Your task to perform on an android device: set default search engine in the chrome app Image 0: 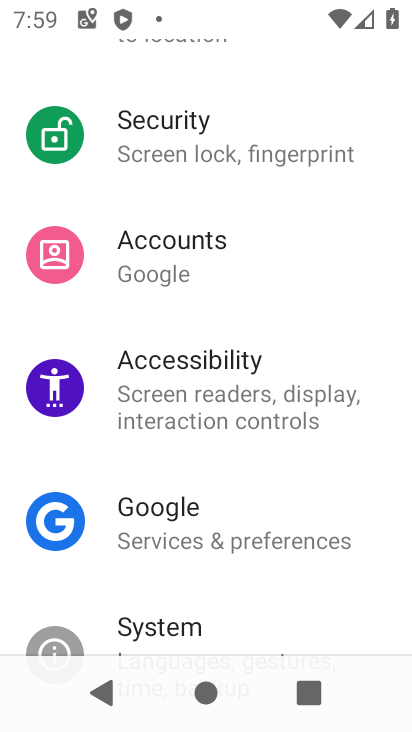
Step 0: press home button
Your task to perform on an android device: set default search engine in the chrome app Image 1: 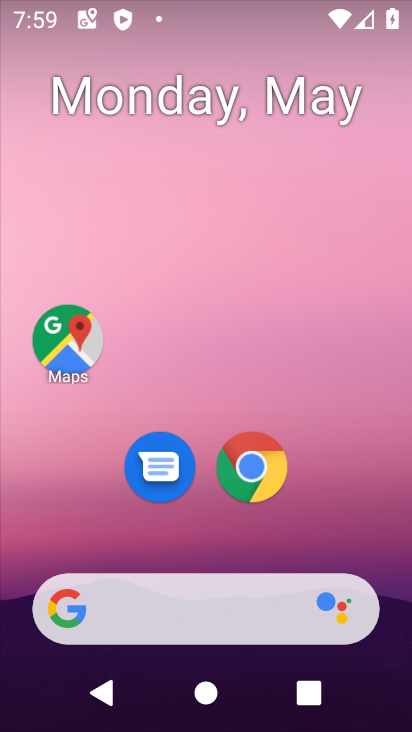
Step 1: click (247, 462)
Your task to perform on an android device: set default search engine in the chrome app Image 2: 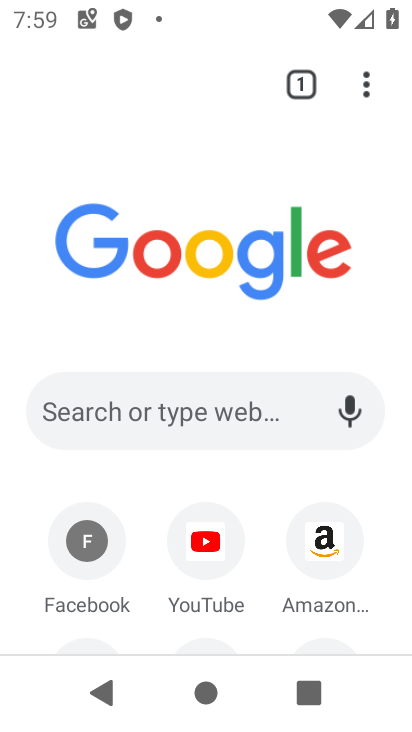
Step 2: click (373, 80)
Your task to perform on an android device: set default search engine in the chrome app Image 3: 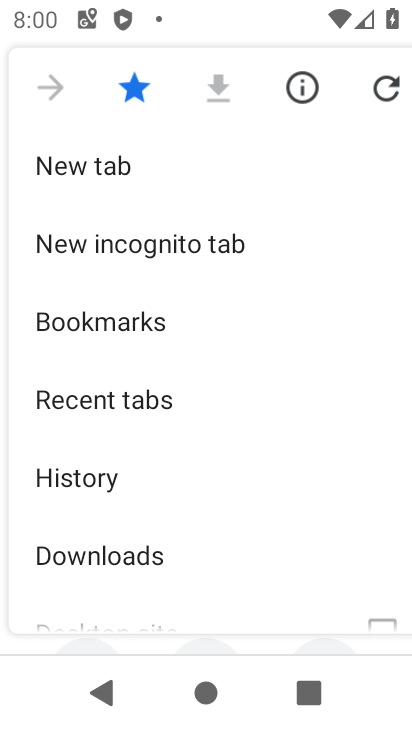
Step 3: drag from (229, 564) to (213, 198)
Your task to perform on an android device: set default search engine in the chrome app Image 4: 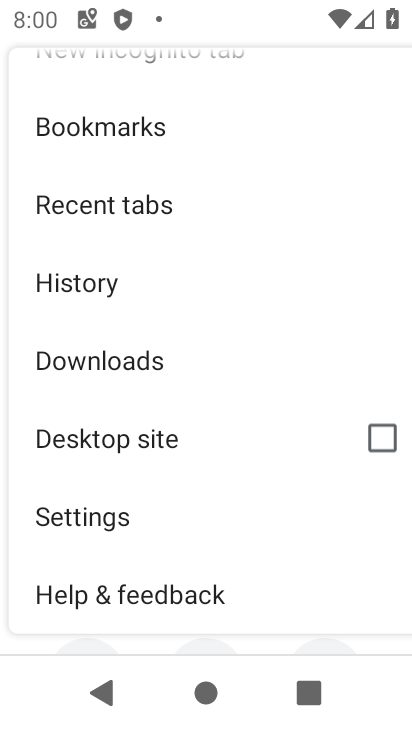
Step 4: click (196, 511)
Your task to perform on an android device: set default search engine in the chrome app Image 5: 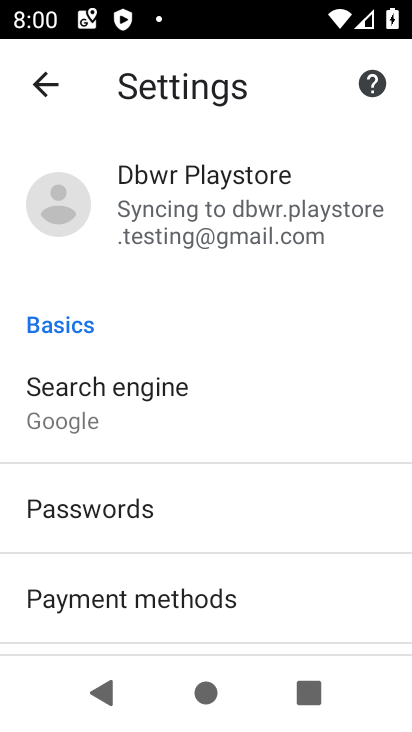
Step 5: click (190, 398)
Your task to perform on an android device: set default search engine in the chrome app Image 6: 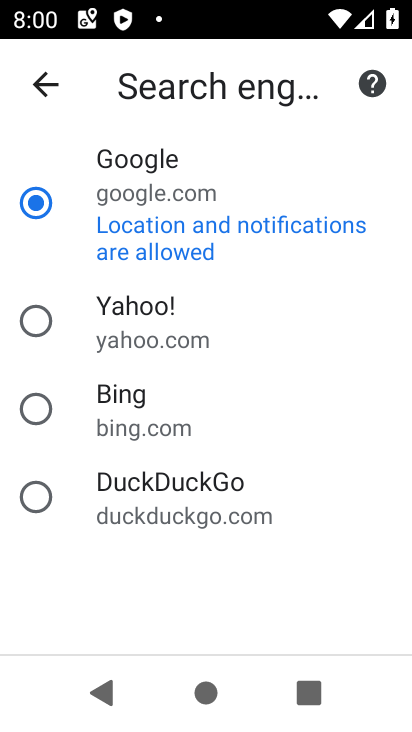
Step 6: click (197, 148)
Your task to perform on an android device: set default search engine in the chrome app Image 7: 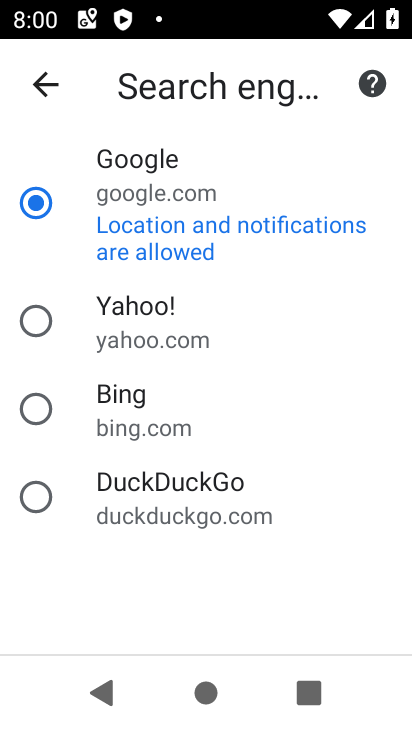
Step 7: task complete